Your task to perform on an android device: turn off wifi Image 0: 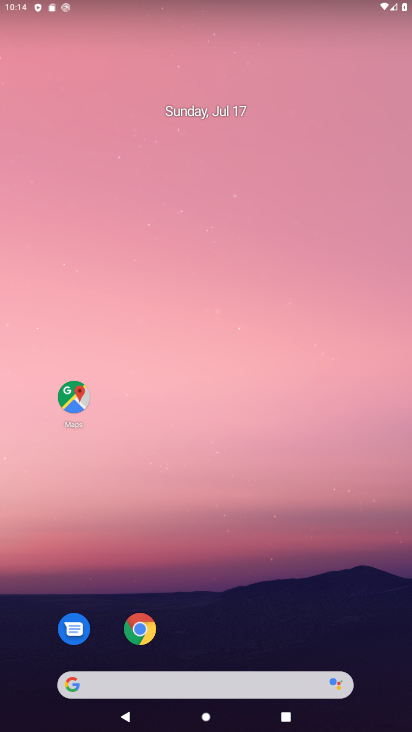
Step 0: drag from (200, 574) to (210, 107)
Your task to perform on an android device: turn off wifi Image 1: 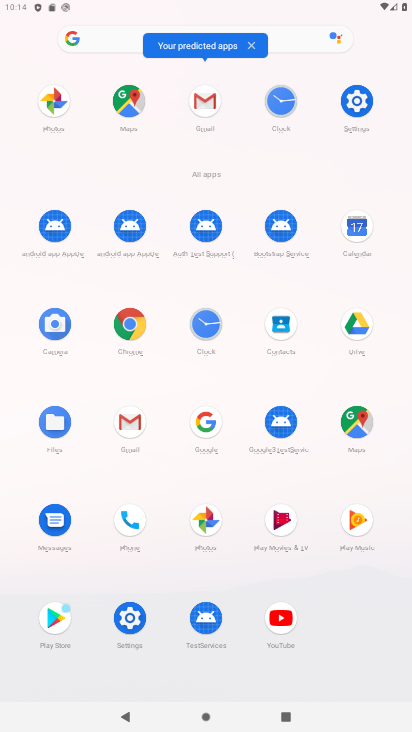
Step 1: click (356, 101)
Your task to perform on an android device: turn off wifi Image 2: 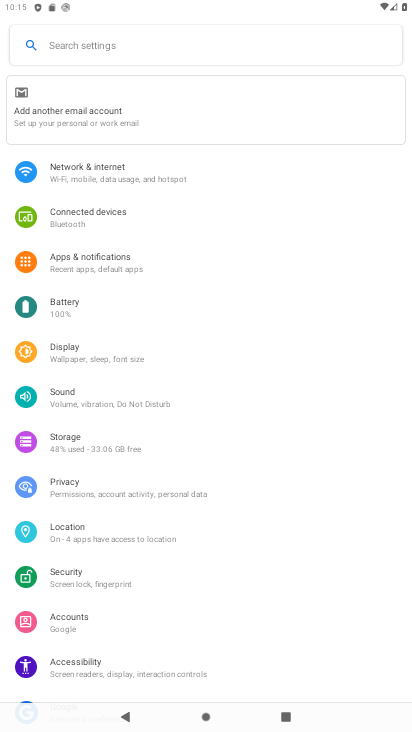
Step 2: drag from (178, 607) to (225, 610)
Your task to perform on an android device: turn off wifi Image 3: 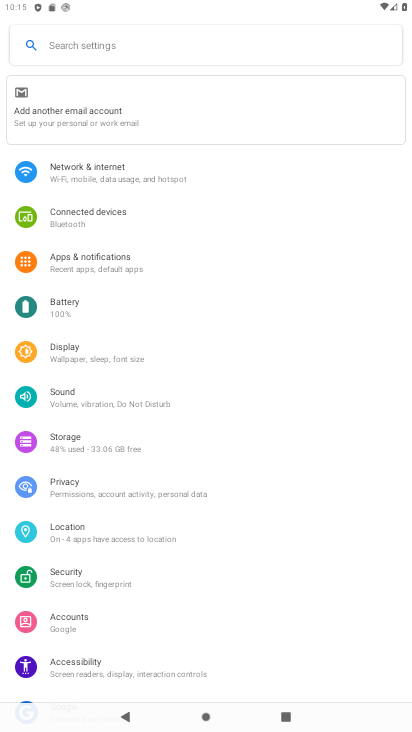
Step 3: click (174, 168)
Your task to perform on an android device: turn off wifi Image 4: 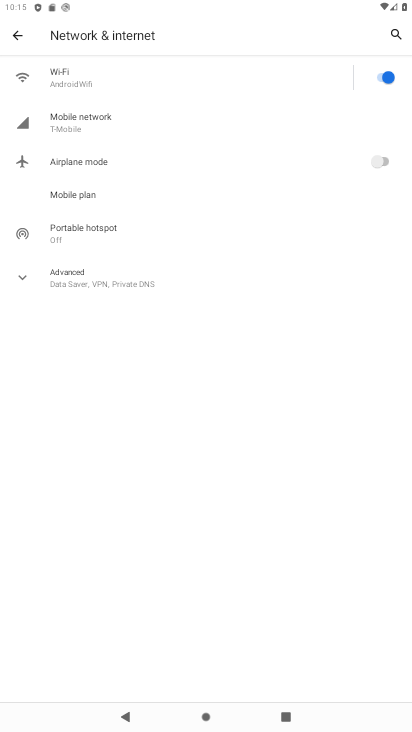
Step 4: click (377, 82)
Your task to perform on an android device: turn off wifi Image 5: 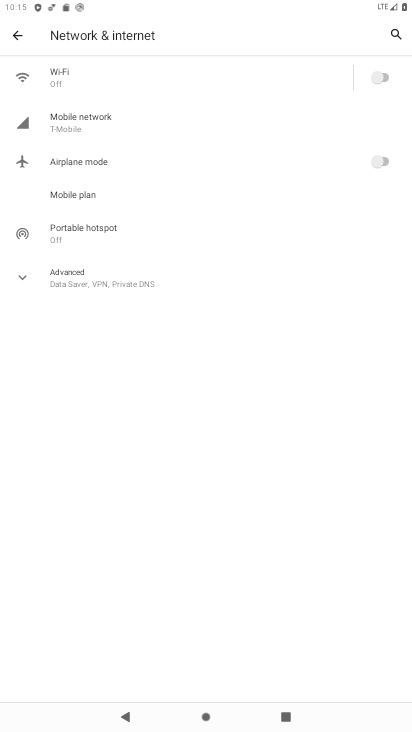
Step 5: task complete